Your task to perform on an android device: see creations saved in the google photos Image 0: 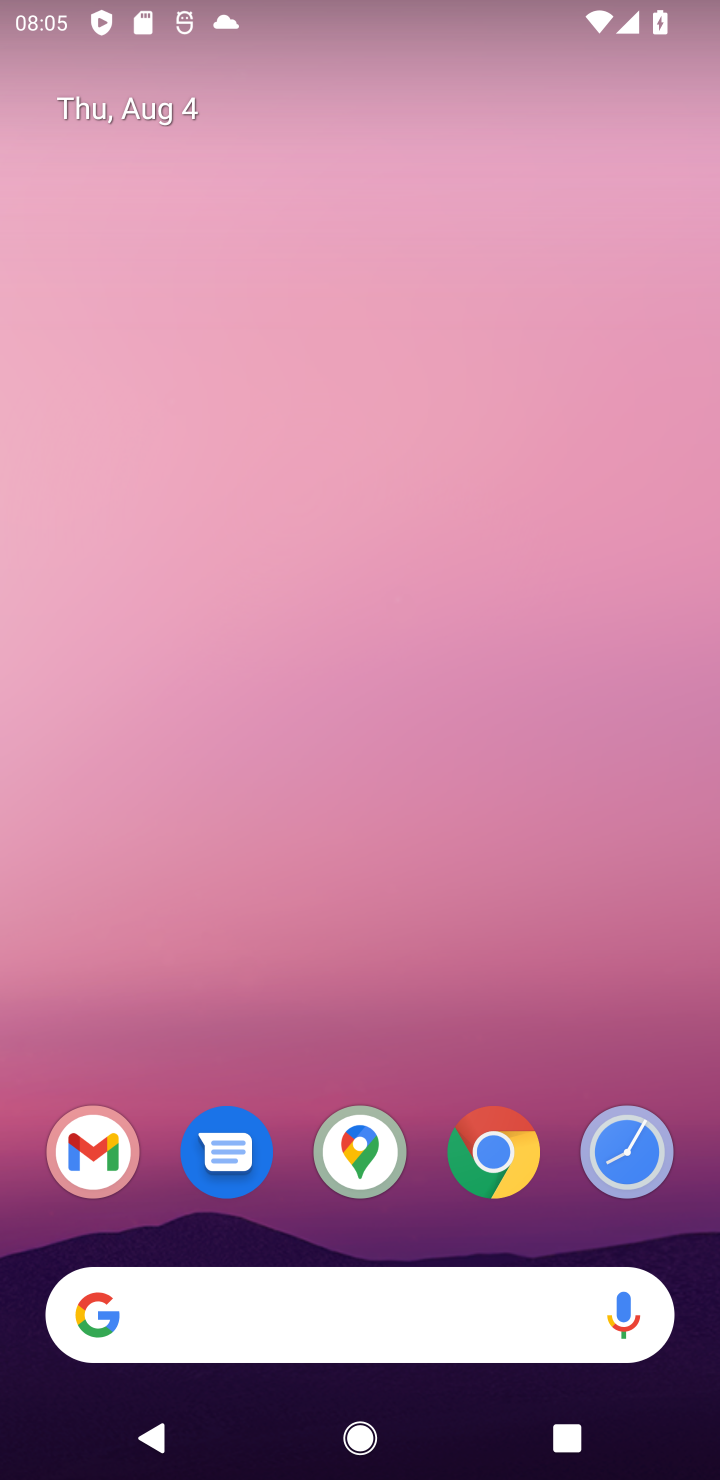
Step 0: drag from (107, 818) to (239, 392)
Your task to perform on an android device: see creations saved in the google photos Image 1: 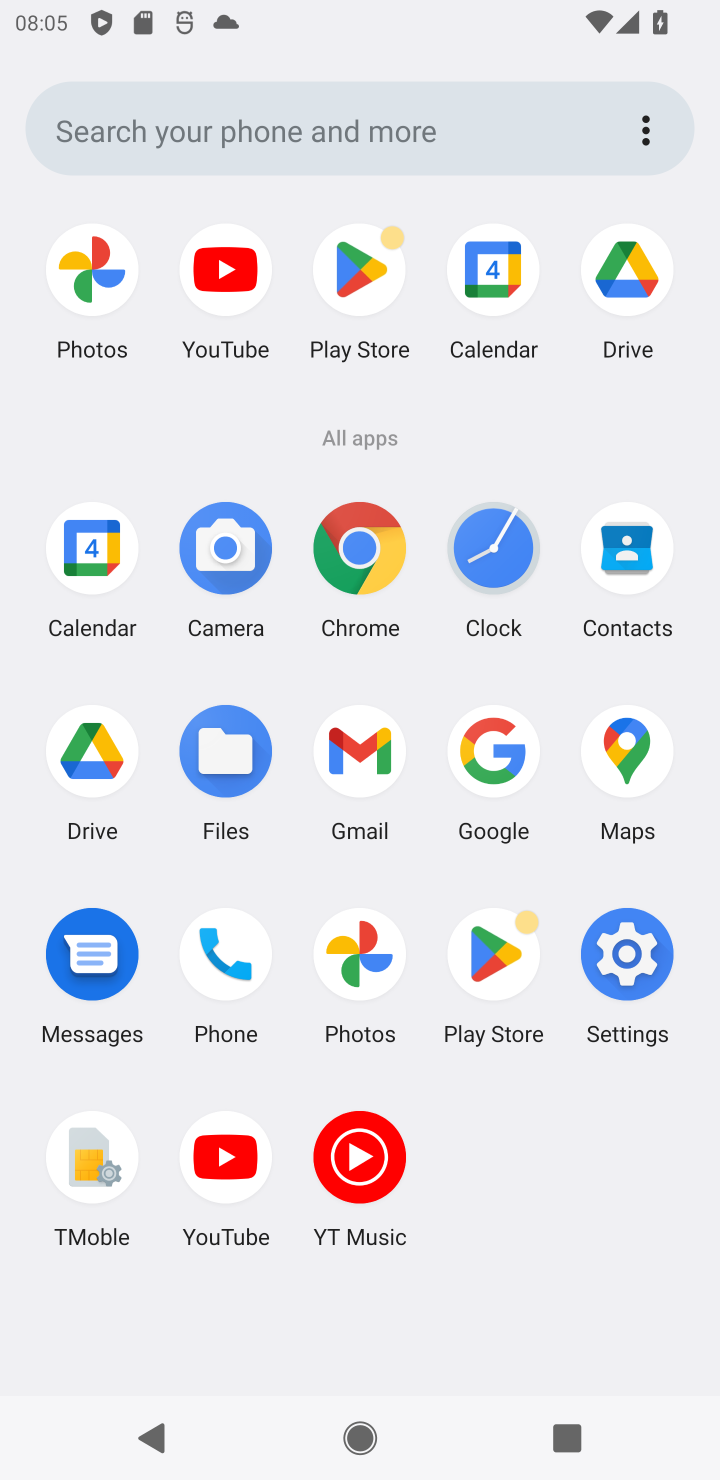
Step 1: click (91, 273)
Your task to perform on an android device: see creations saved in the google photos Image 2: 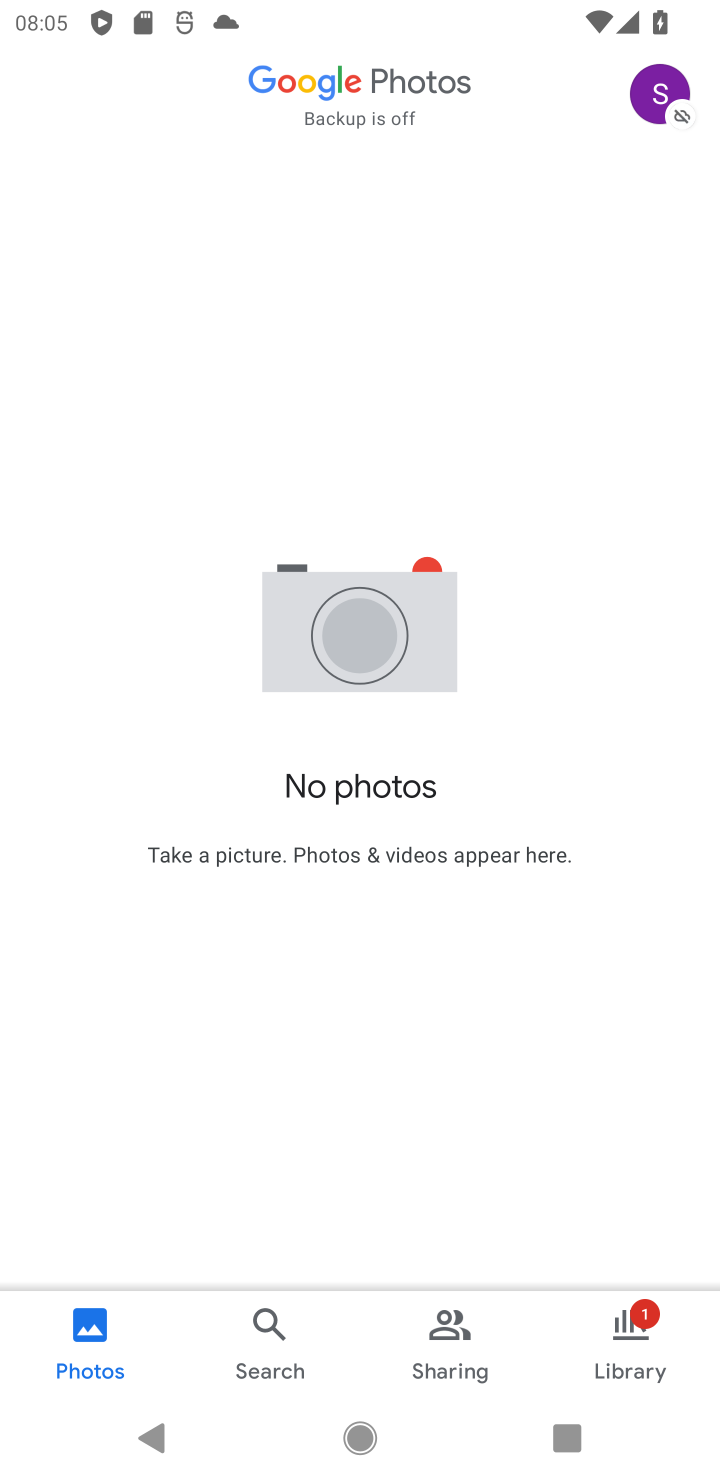
Step 2: drag from (312, 366) to (367, 493)
Your task to perform on an android device: see creations saved in the google photos Image 3: 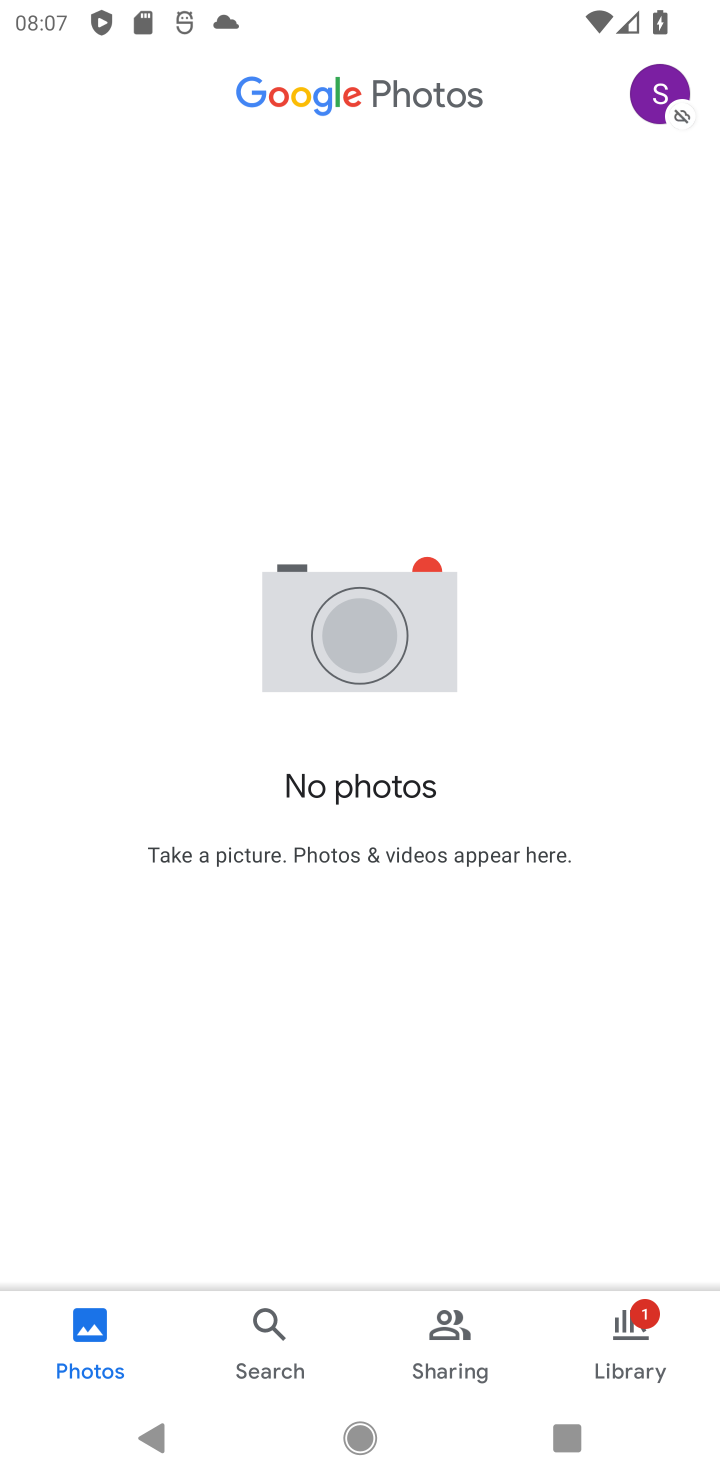
Step 3: click (258, 1303)
Your task to perform on an android device: see creations saved in the google photos Image 4: 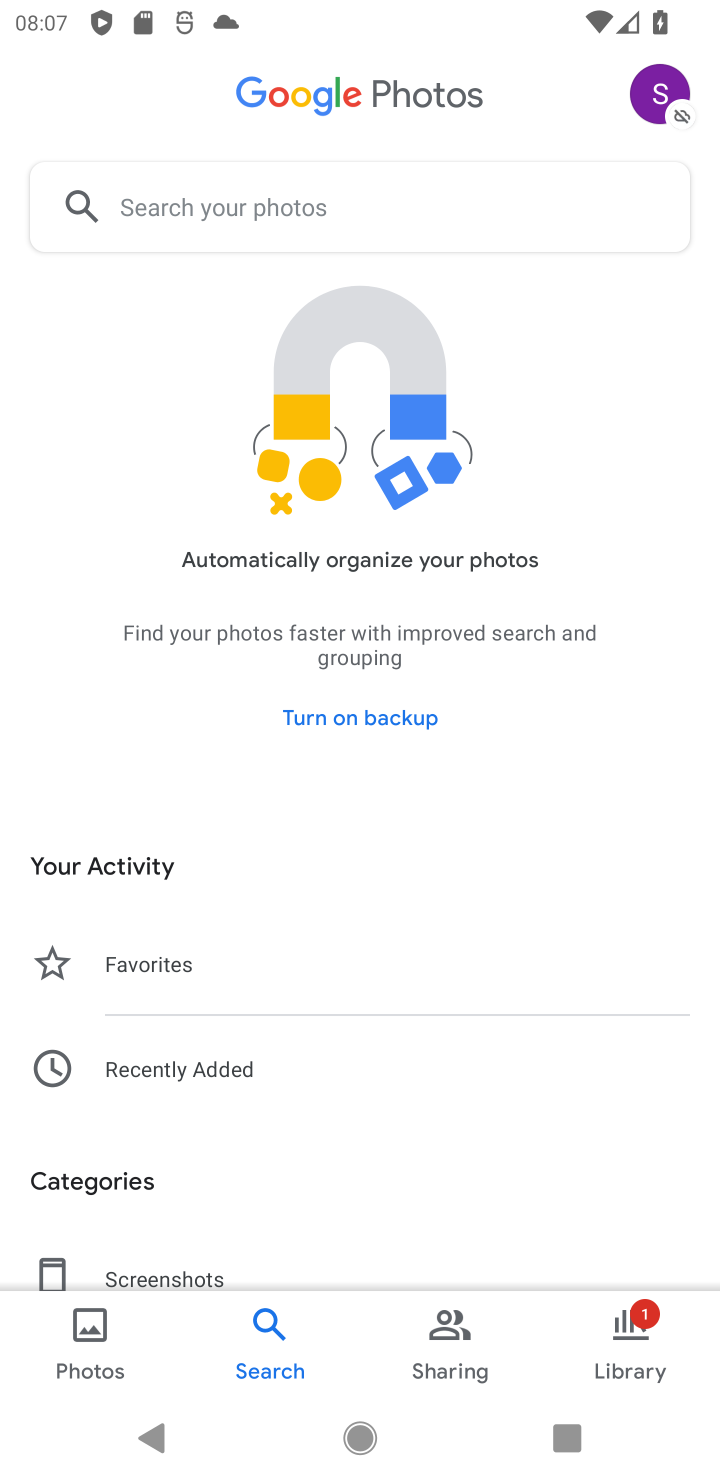
Step 4: click (263, 196)
Your task to perform on an android device: see creations saved in the google photos Image 5: 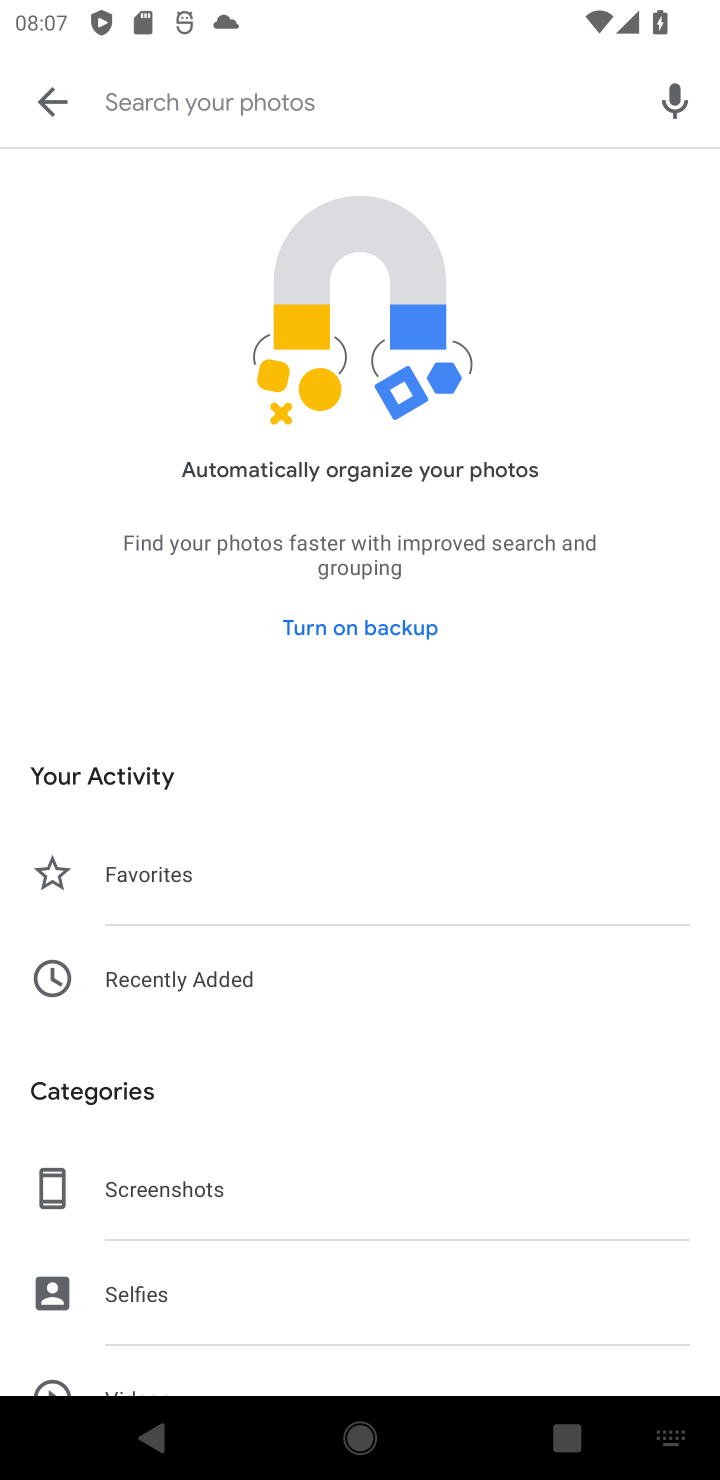
Step 5: drag from (70, 978) to (193, 380)
Your task to perform on an android device: see creations saved in the google photos Image 6: 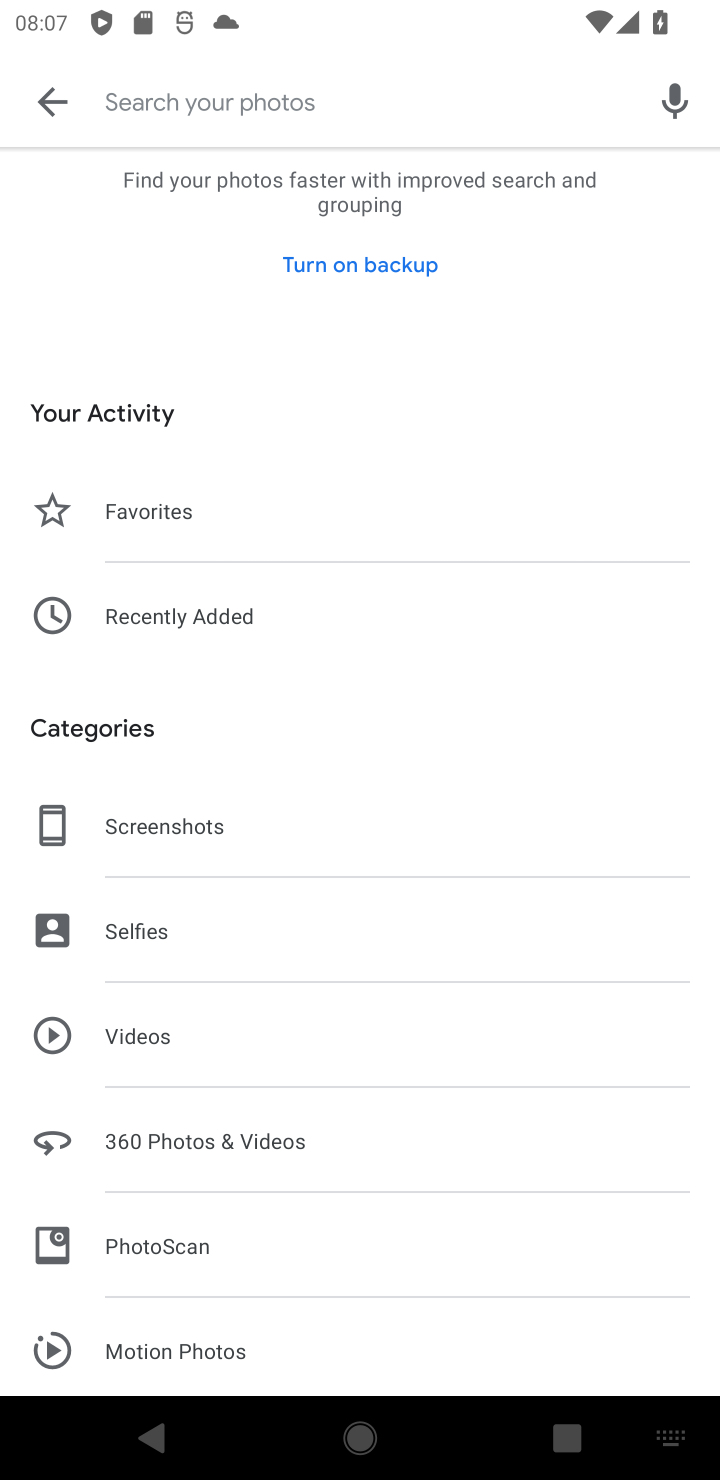
Step 6: drag from (39, 1176) to (454, 332)
Your task to perform on an android device: see creations saved in the google photos Image 7: 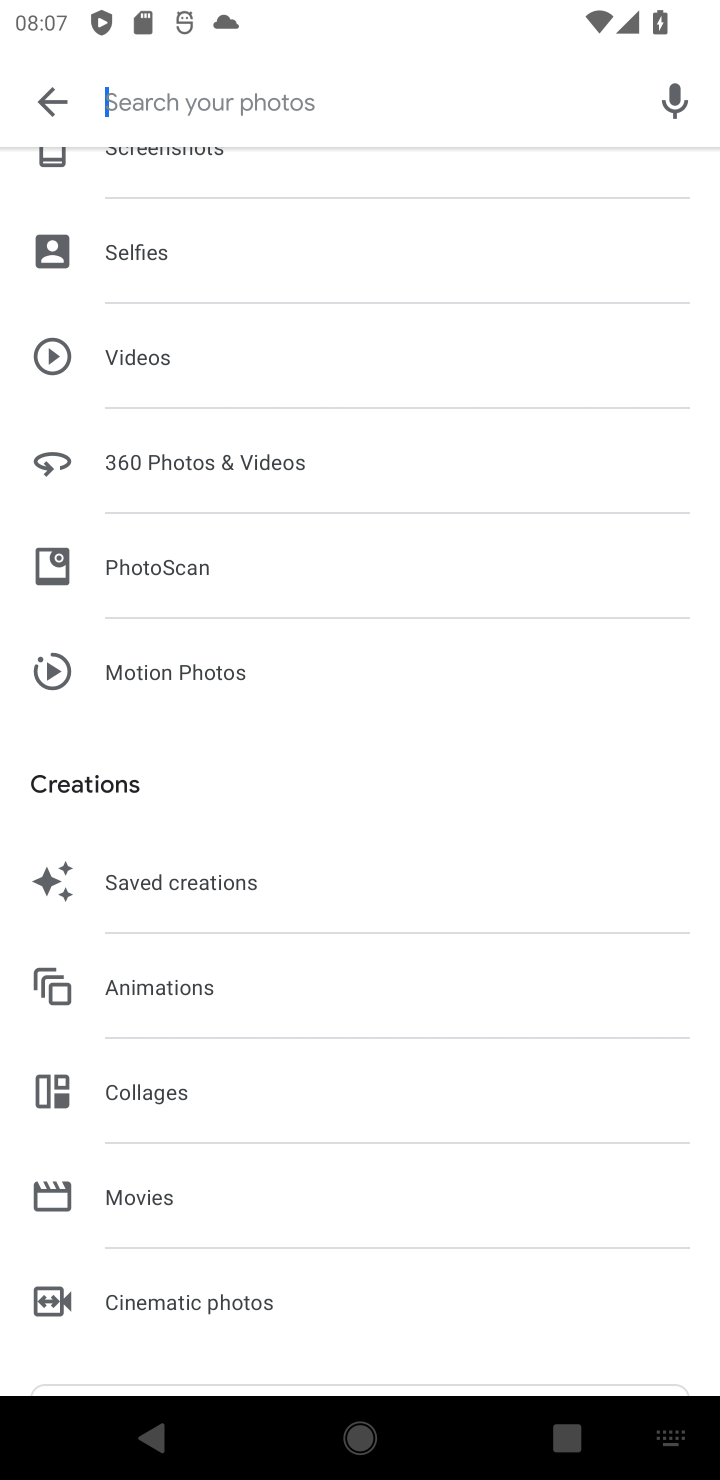
Step 7: click (175, 866)
Your task to perform on an android device: see creations saved in the google photos Image 8: 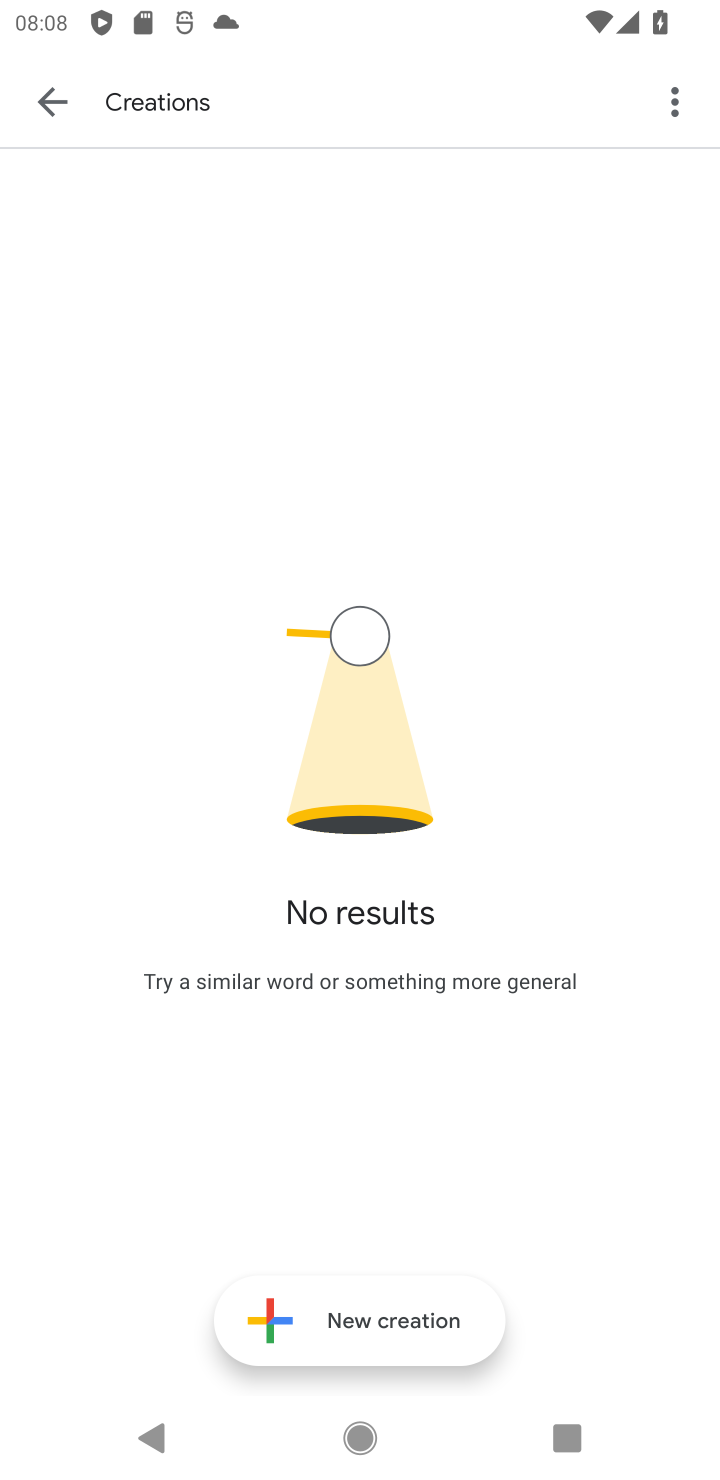
Step 8: task complete